Your task to perform on an android device: open a bookmark in the chrome app Image 0: 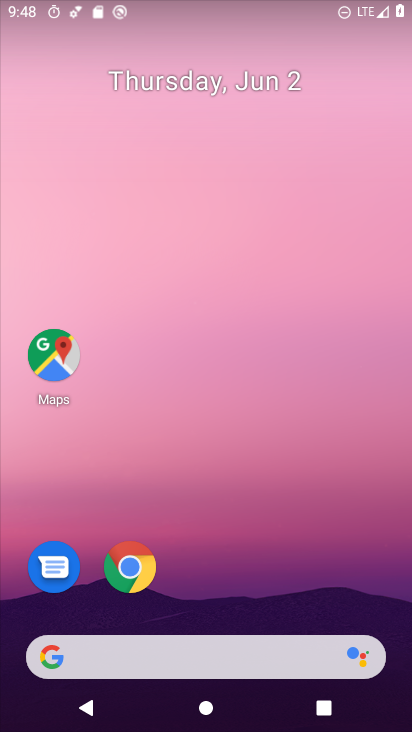
Step 0: drag from (321, 598) to (303, 69)
Your task to perform on an android device: open a bookmark in the chrome app Image 1: 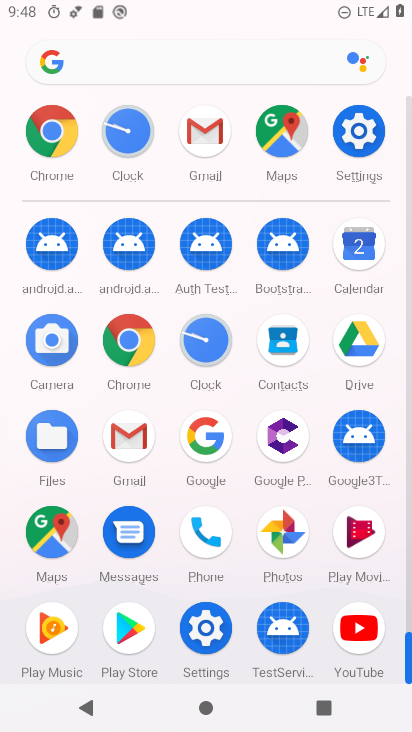
Step 1: click (122, 351)
Your task to perform on an android device: open a bookmark in the chrome app Image 2: 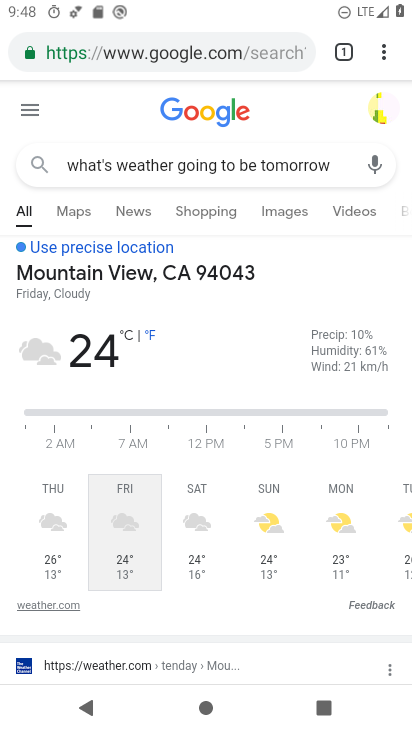
Step 2: task complete